Your task to perform on an android device: Open Youtube and go to the subscriptions tab Image 0: 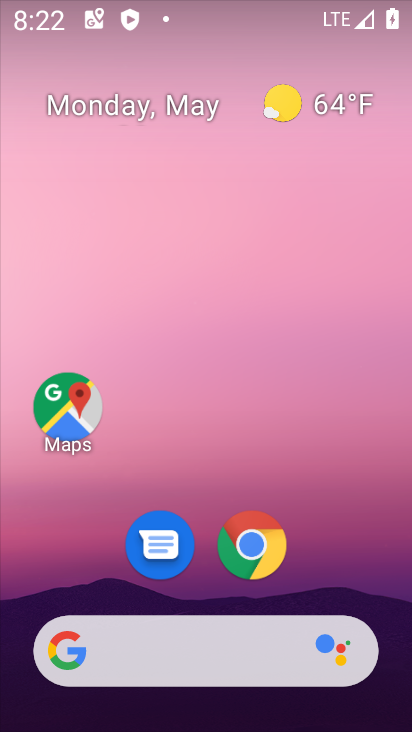
Step 0: drag from (186, 658) to (218, 36)
Your task to perform on an android device: Open Youtube and go to the subscriptions tab Image 1: 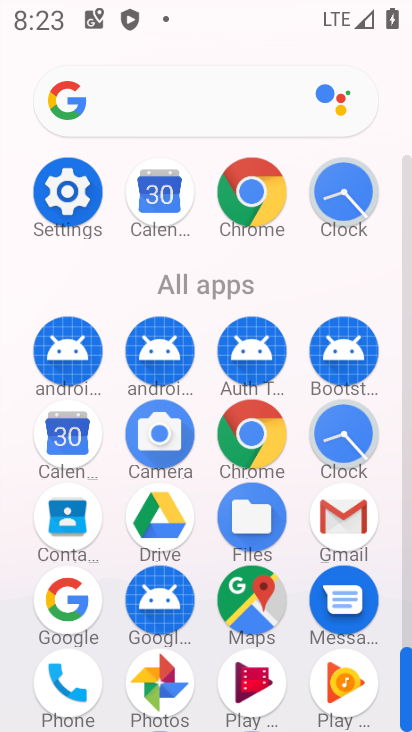
Step 1: drag from (212, 659) to (201, 175)
Your task to perform on an android device: Open Youtube and go to the subscriptions tab Image 2: 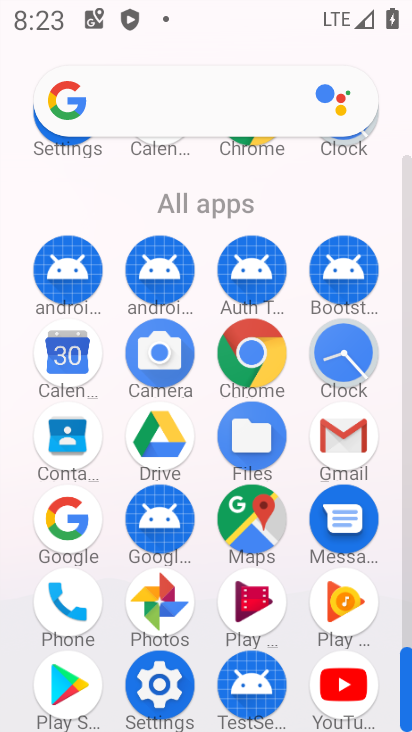
Step 2: click (333, 676)
Your task to perform on an android device: Open Youtube and go to the subscriptions tab Image 3: 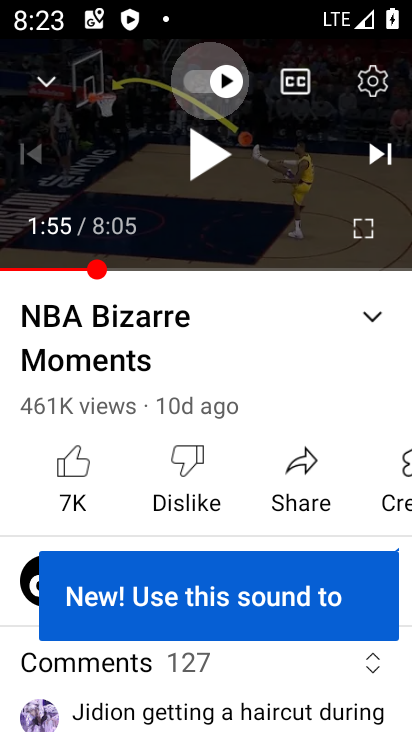
Step 3: drag from (126, 155) to (401, 701)
Your task to perform on an android device: Open Youtube and go to the subscriptions tab Image 4: 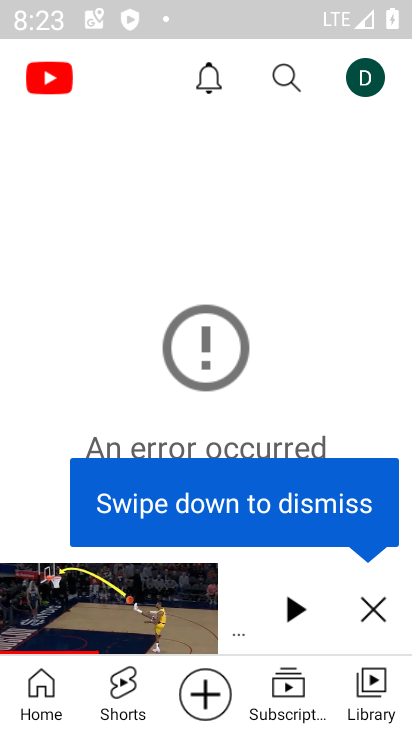
Step 4: click (284, 679)
Your task to perform on an android device: Open Youtube and go to the subscriptions tab Image 5: 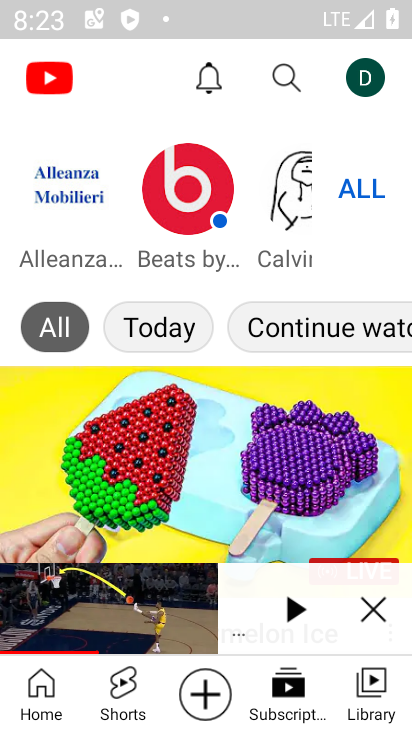
Step 5: task complete